Your task to perform on an android device: set the timer Image 0: 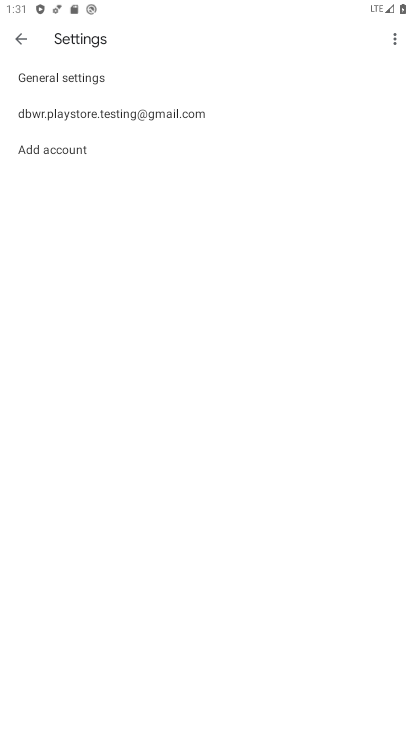
Step 0: press home button
Your task to perform on an android device: set the timer Image 1: 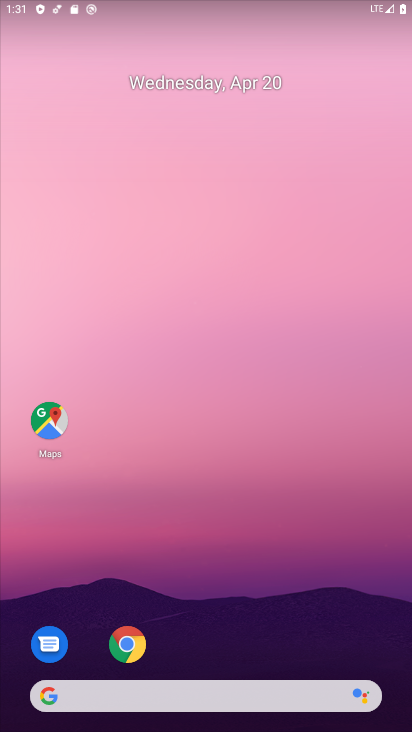
Step 1: drag from (184, 642) to (219, 4)
Your task to perform on an android device: set the timer Image 2: 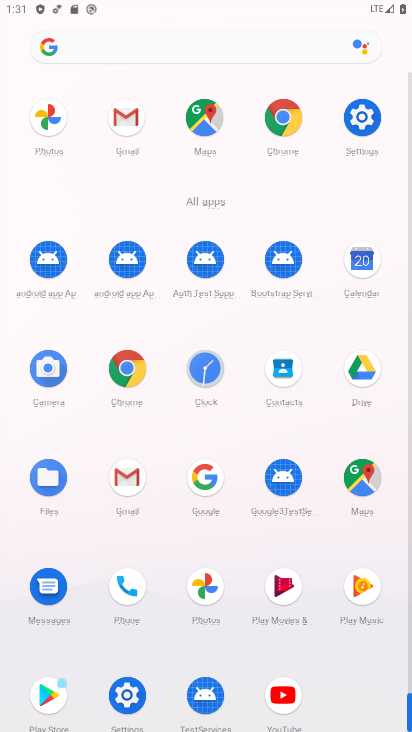
Step 2: click (200, 370)
Your task to perform on an android device: set the timer Image 3: 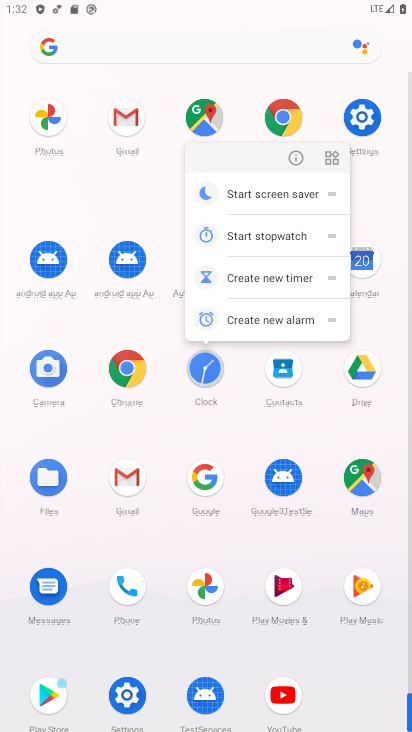
Step 3: click (191, 378)
Your task to perform on an android device: set the timer Image 4: 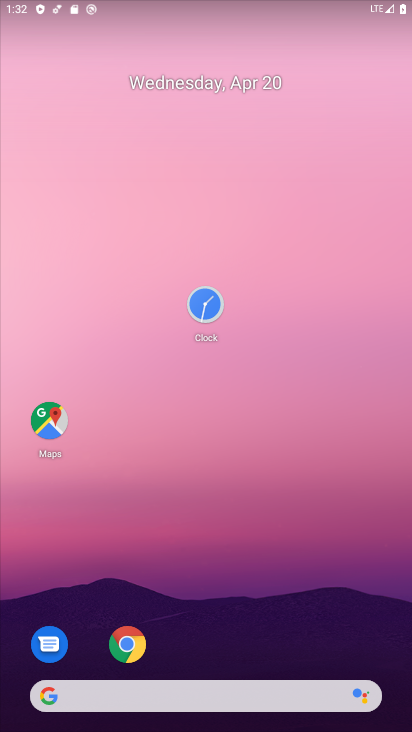
Step 4: drag from (245, 671) to (243, 105)
Your task to perform on an android device: set the timer Image 5: 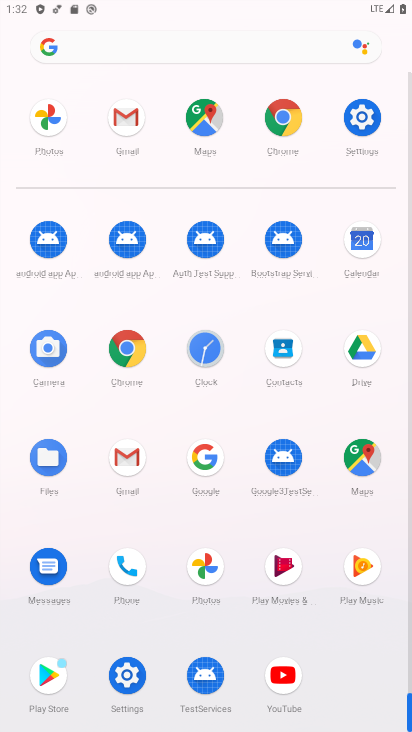
Step 5: click (220, 345)
Your task to perform on an android device: set the timer Image 6: 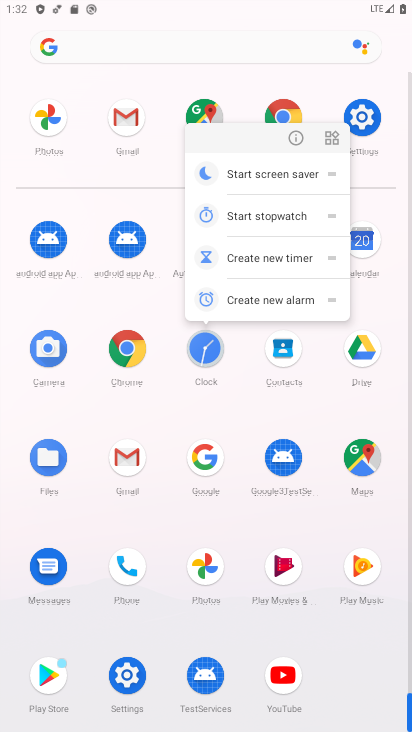
Step 6: click (218, 341)
Your task to perform on an android device: set the timer Image 7: 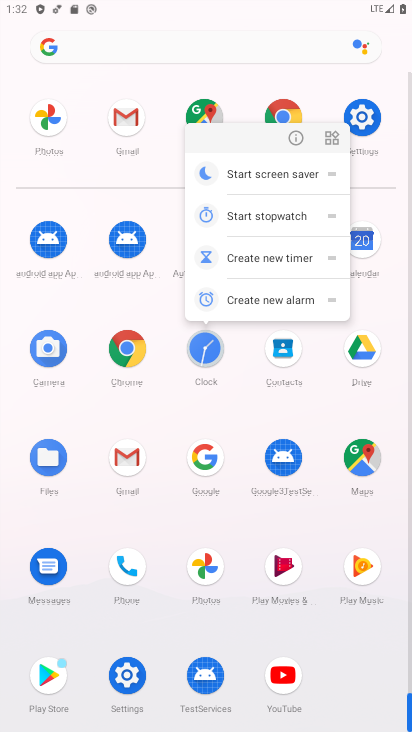
Step 7: click (203, 355)
Your task to perform on an android device: set the timer Image 8: 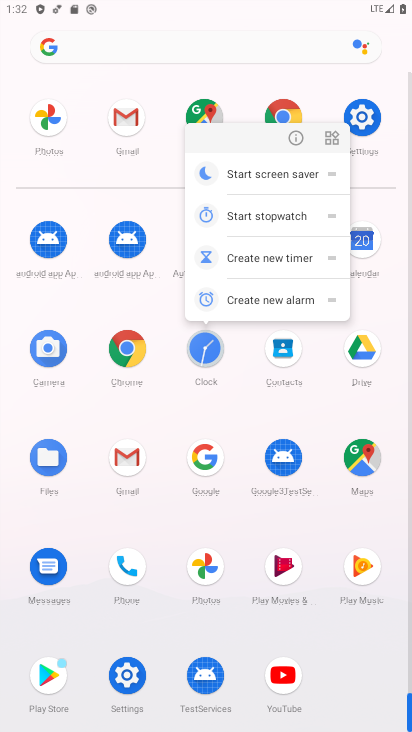
Step 8: click (203, 355)
Your task to perform on an android device: set the timer Image 9: 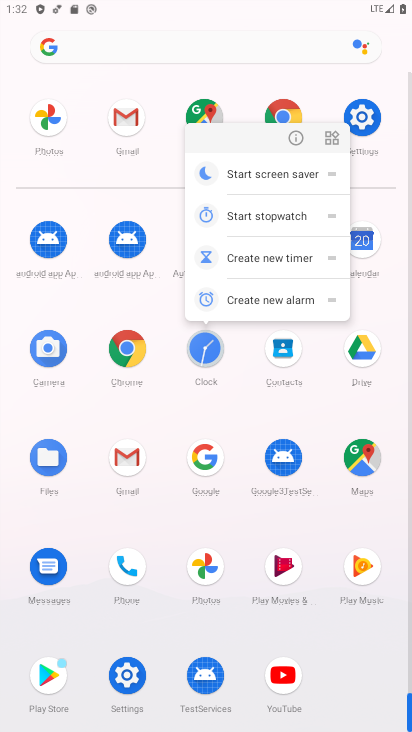
Step 9: click (203, 355)
Your task to perform on an android device: set the timer Image 10: 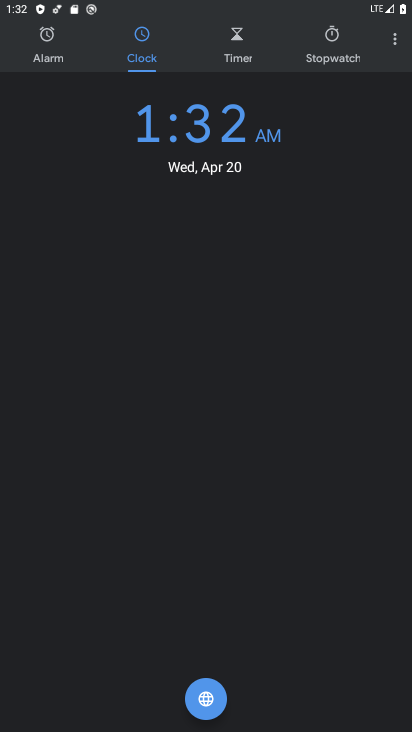
Step 10: click (255, 38)
Your task to perform on an android device: set the timer Image 11: 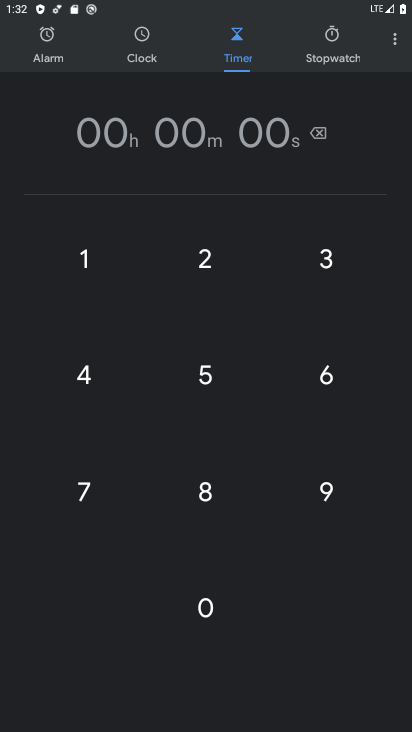
Step 11: drag from (287, 281) to (278, 204)
Your task to perform on an android device: set the timer Image 12: 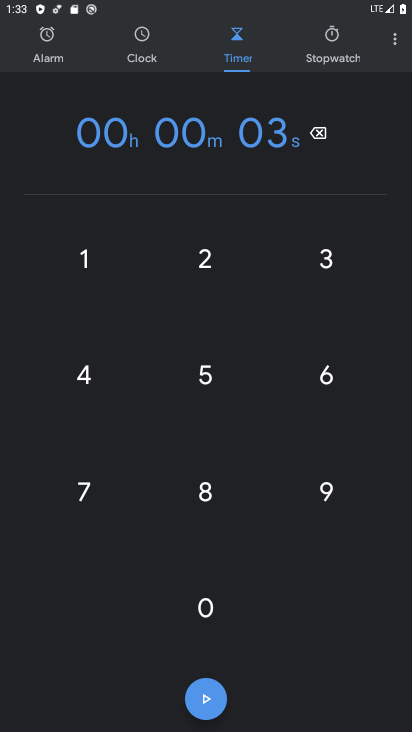
Step 12: click (201, 505)
Your task to perform on an android device: set the timer Image 13: 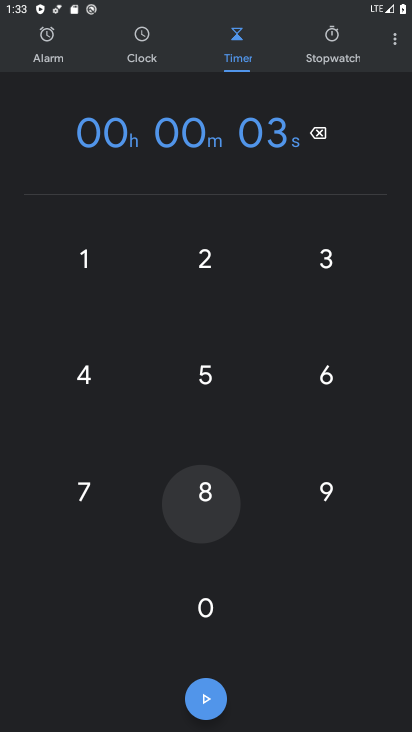
Step 13: click (210, 389)
Your task to perform on an android device: set the timer Image 14: 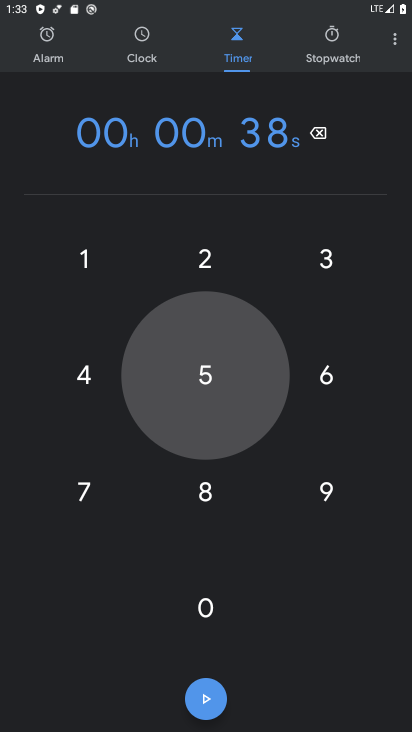
Step 14: click (199, 279)
Your task to perform on an android device: set the timer Image 15: 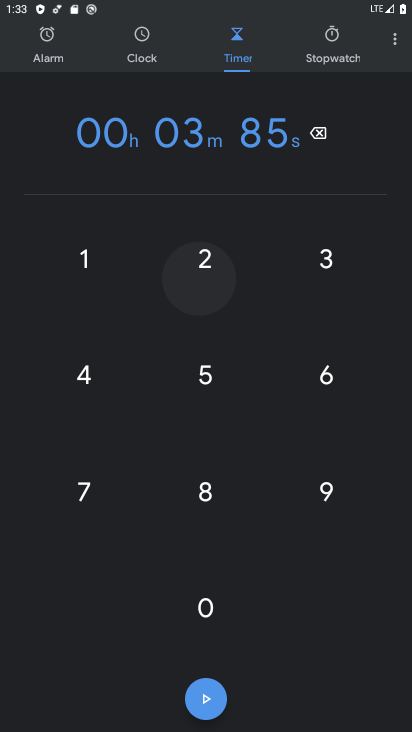
Step 15: click (94, 287)
Your task to perform on an android device: set the timer Image 16: 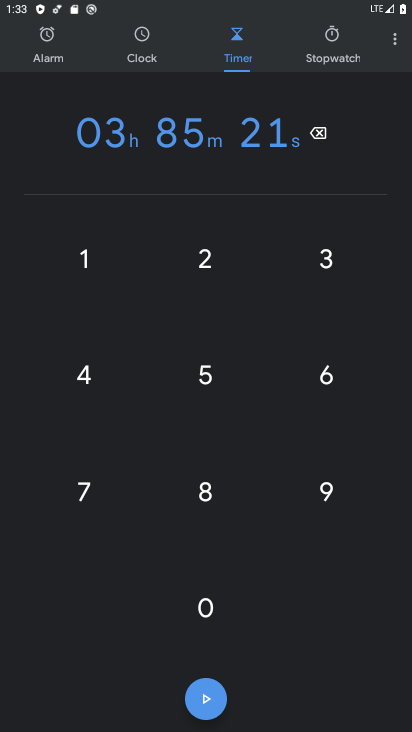
Step 16: click (207, 703)
Your task to perform on an android device: set the timer Image 17: 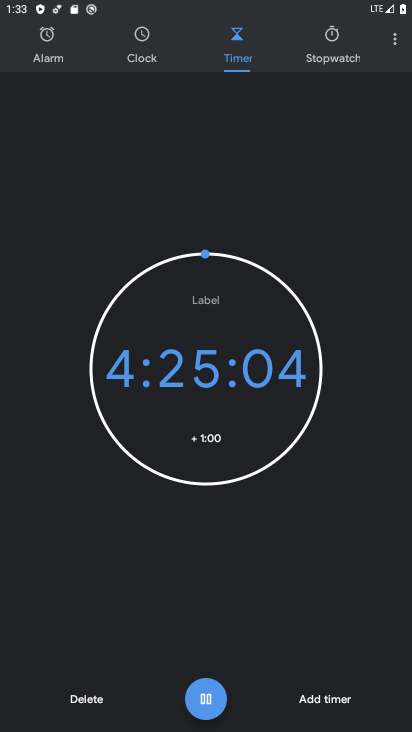
Step 17: task complete